Your task to perform on an android device: When is my next appointment? Image 0: 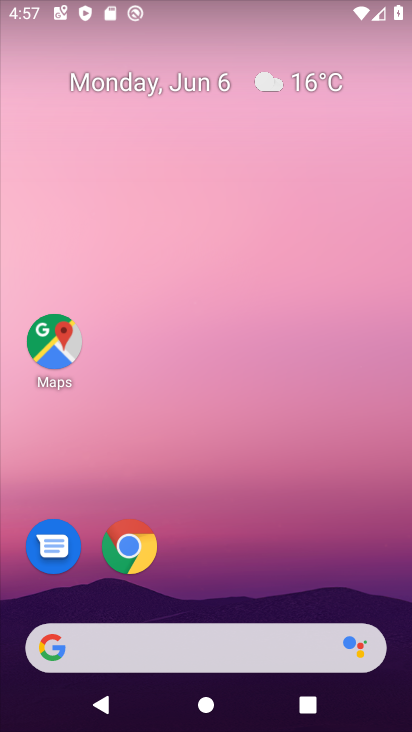
Step 0: drag from (203, 618) to (203, 218)
Your task to perform on an android device: When is my next appointment? Image 1: 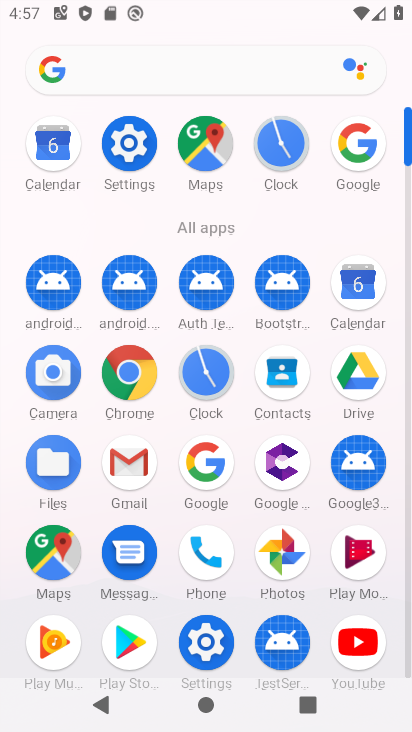
Step 1: click (362, 287)
Your task to perform on an android device: When is my next appointment? Image 2: 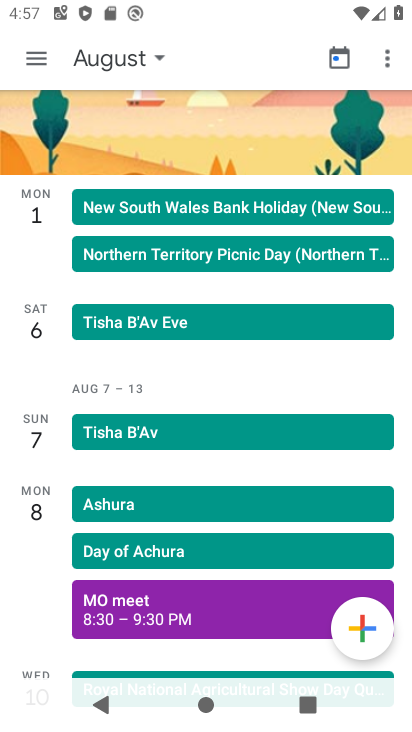
Step 2: click (120, 57)
Your task to perform on an android device: When is my next appointment? Image 3: 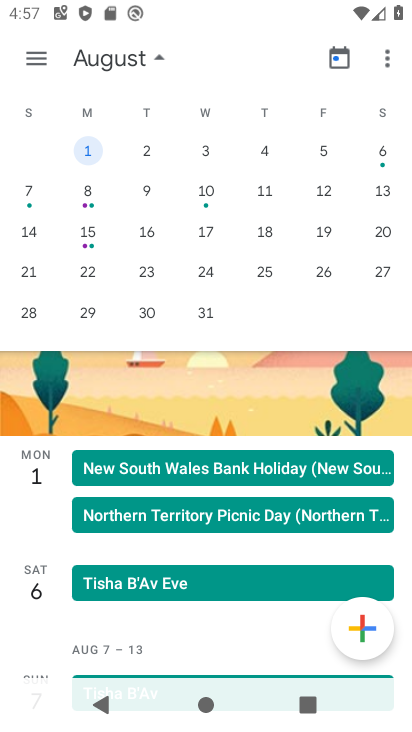
Step 3: task complete